Your task to perform on an android device: Open the web browser Image 0: 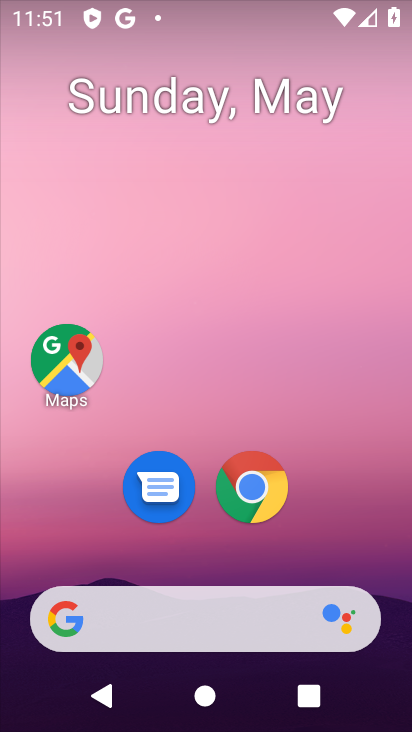
Step 0: click (248, 487)
Your task to perform on an android device: Open the web browser Image 1: 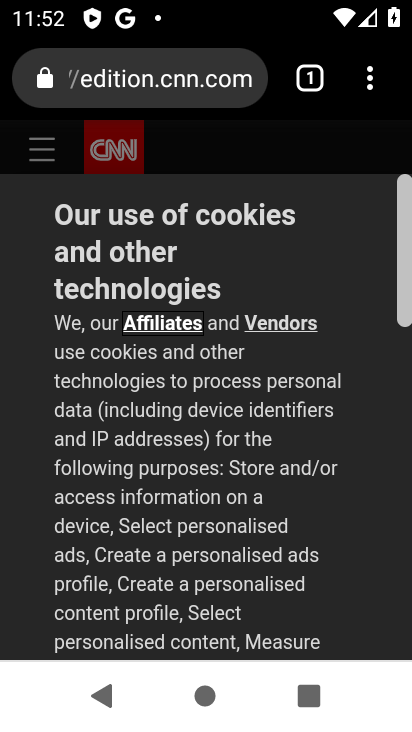
Step 1: task complete